Your task to perform on an android device: Open Google Maps and go to "Timeline" Image 0: 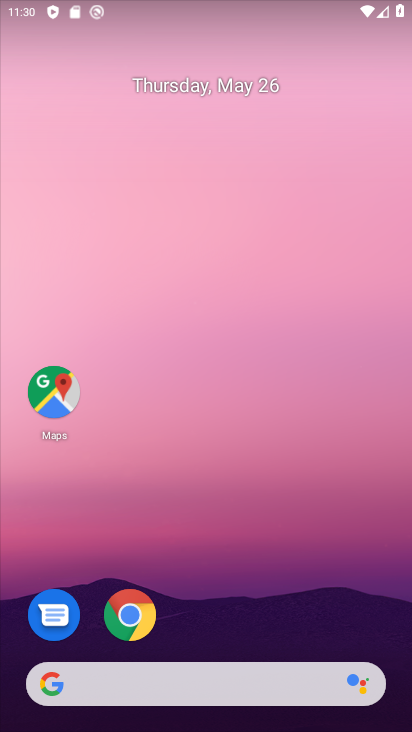
Step 0: drag from (234, 627) to (156, 181)
Your task to perform on an android device: Open Google Maps and go to "Timeline" Image 1: 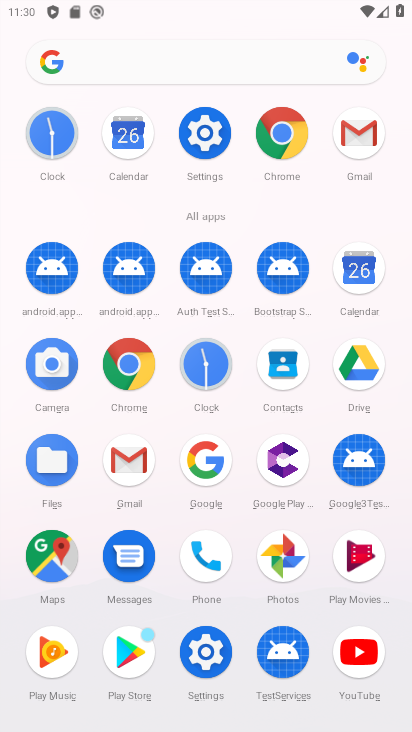
Step 1: click (65, 553)
Your task to perform on an android device: Open Google Maps and go to "Timeline" Image 2: 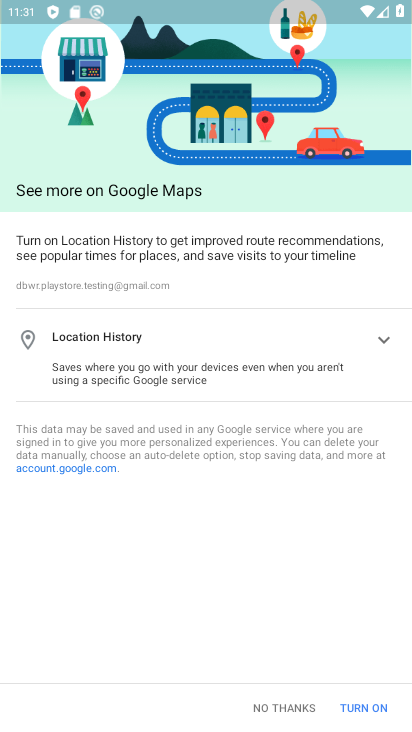
Step 2: click (279, 705)
Your task to perform on an android device: Open Google Maps and go to "Timeline" Image 3: 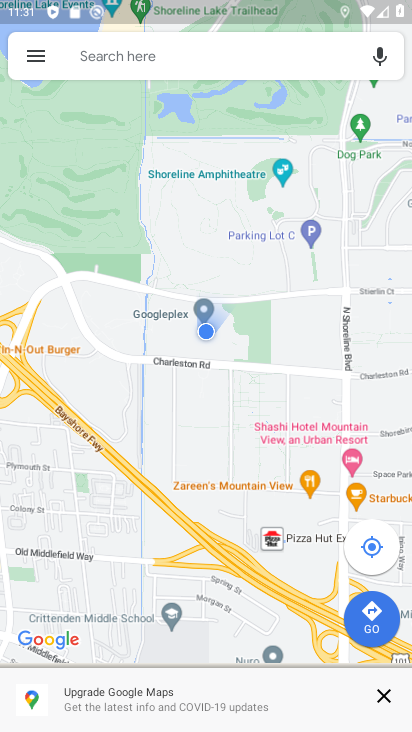
Step 3: click (37, 55)
Your task to perform on an android device: Open Google Maps and go to "Timeline" Image 4: 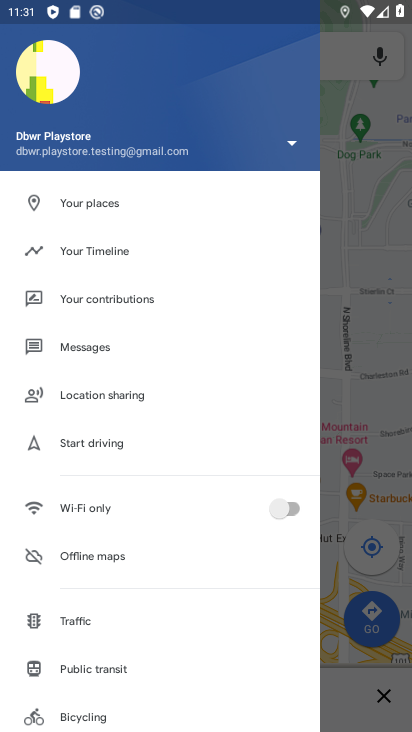
Step 4: click (112, 259)
Your task to perform on an android device: Open Google Maps and go to "Timeline" Image 5: 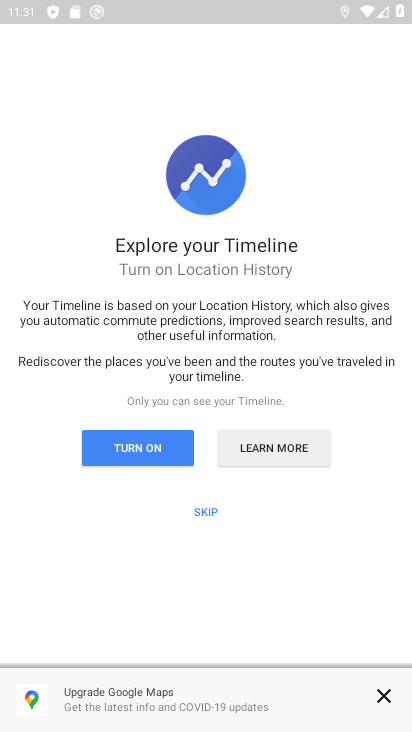
Step 5: click (202, 509)
Your task to perform on an android device: Open Google Maps and go to "Timeline" Image 6: 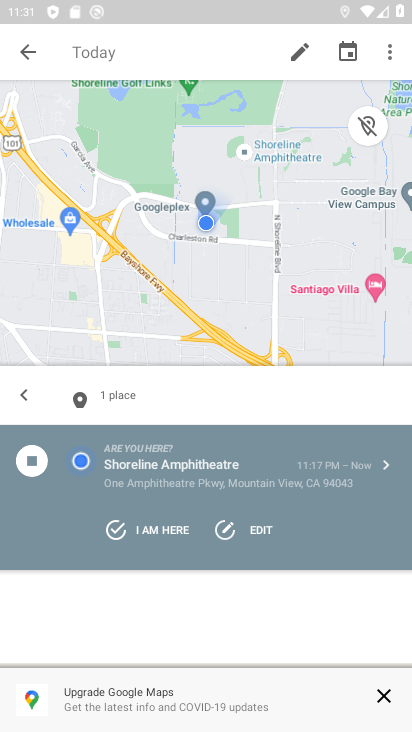
Step 6: task complete